Your task to perform on an android device: check android version Image 0: 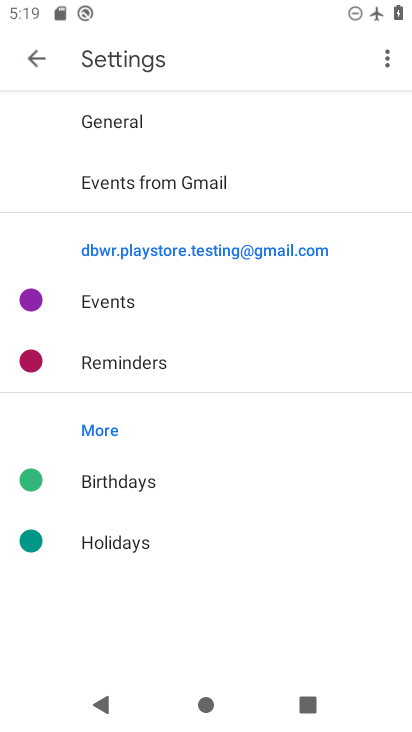
Step 0: press home button
Your task to perform on an android device: check android version Image 1: 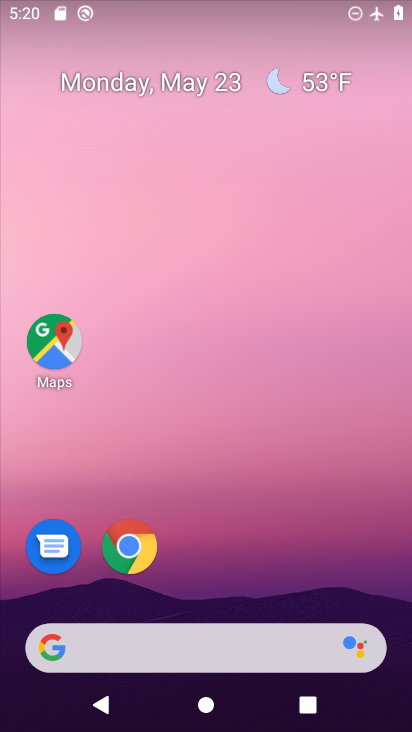
Step 1: drag from (236, 588) to (239, 34)
Your task to perform on an android device: check android version Image 2: 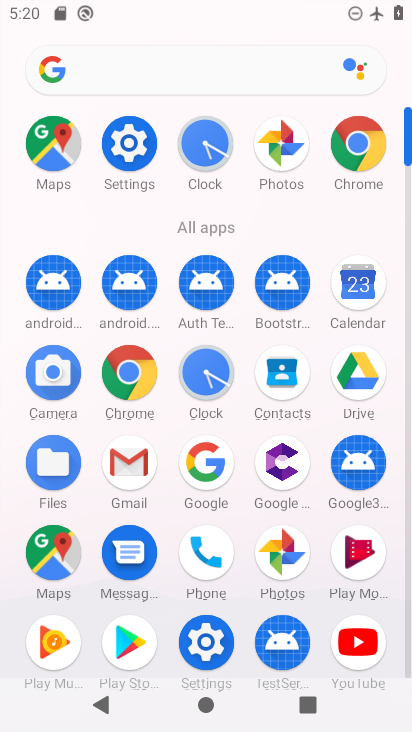
Step 2: click (135, 136)
Your task to perform on an android device: check android version Image 3: 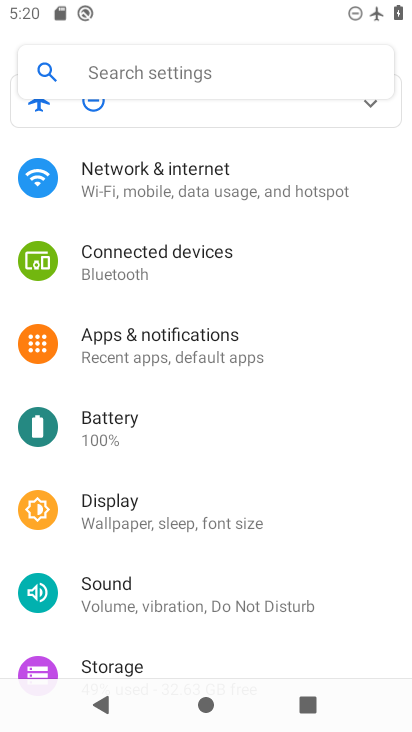
Step 3: drag from (301, 579) to (269, 173)
Your task to perform on an android device: check android version Image 4: 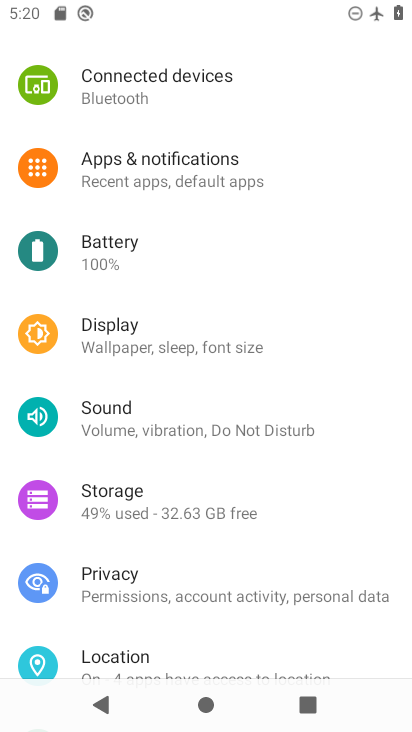
Step 4: drag from (209, 565) to (238, 128)
Your task to perform on an android device: check android version Image 5: 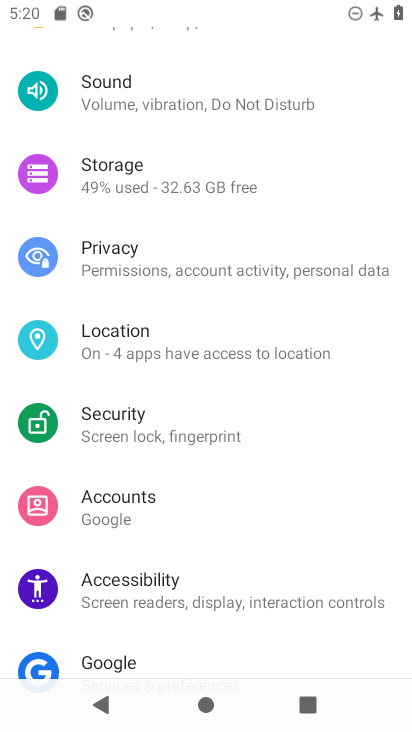
Step 5: drag from (255, 520) to (280, 136)
Your task to perform on an android device: check android version Image 6: 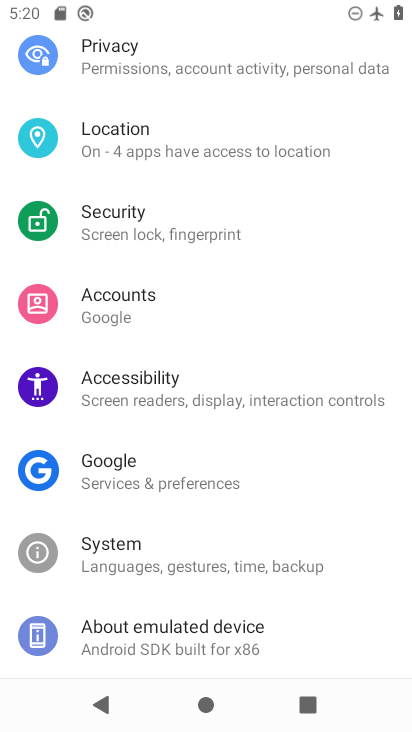
Step 6: click (235, 633)
Your task to perform on an android device: check android version Image 7: 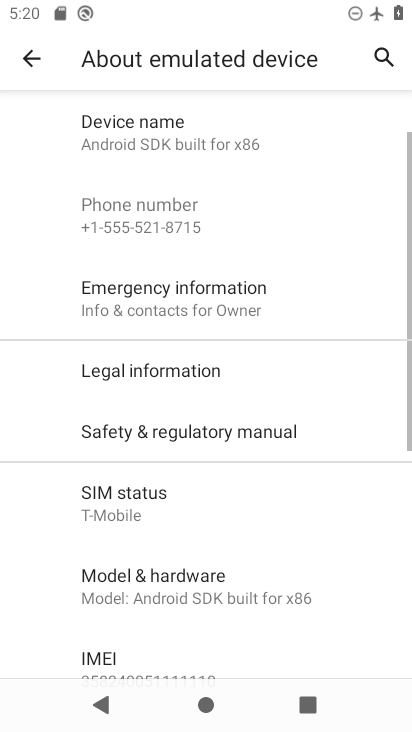
Step 7: drag from (242, 623) to (301, 212)
Your task to perform on an android device: check android version Image 8: 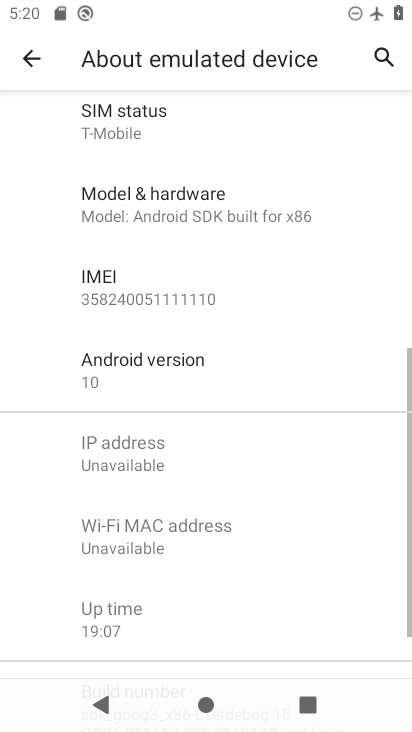
Step 8: click (143, 378)
Your task to perform on an android device: check android version Image 9: 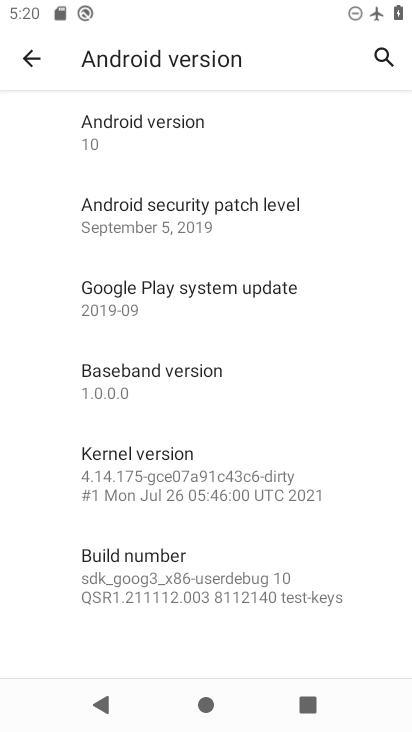
Step 9: task complete